Your task to perform on an android device: turn on priority inbox in the gmail app Image 0: 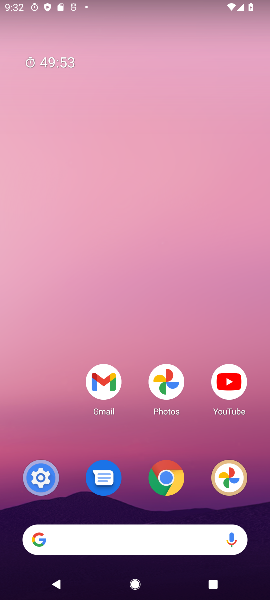
Step 0: press home button
Your task to perform on an android device: turn on priority inbox in the gmail app Image 1: 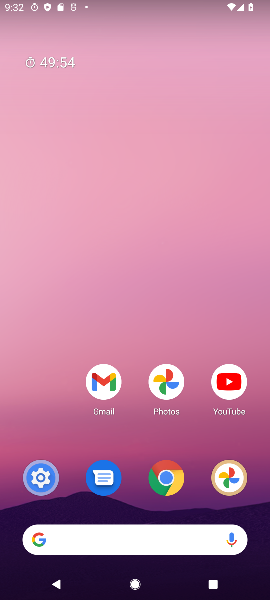
Step 1: drag from (162, 523) to (151, 75)
Your task to perform on an android device: turn on priority inbox in the gmail app Image 2: 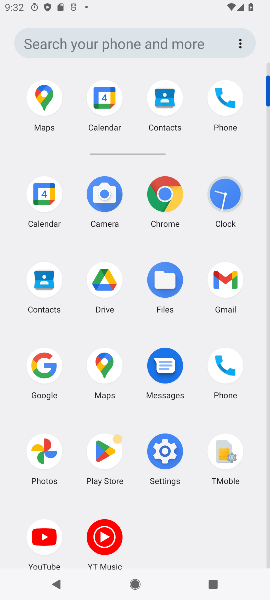
Step 2: click (223, 279)
Your task to perform on an android device: turn on priority inbox in the gmail app Image 3: 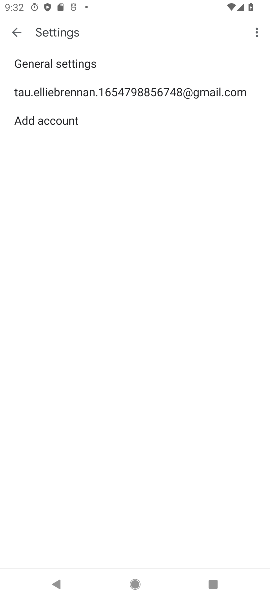
Step 3: click (140, 95)
Your task to perform on an android device: turn on priority inbox in the gmail app Image 4: 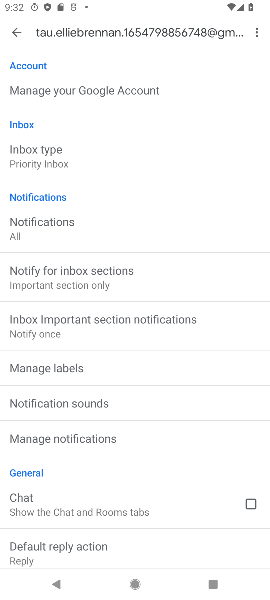
Step 4: press home button
Your task to perform on an android device: turn on priority inbox in the gmail app Image 5: 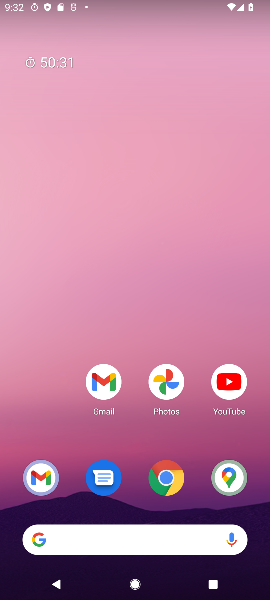
Step 5: click (106, 400)
Your task to perform on an android device: turn on priority inbox in the gmail app Image 6: 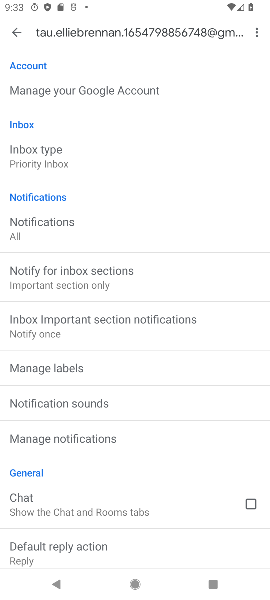
Step 6: click (37, 157)
Your task to perform on an android device: turn on priority inbox in the gmail app Image 7: 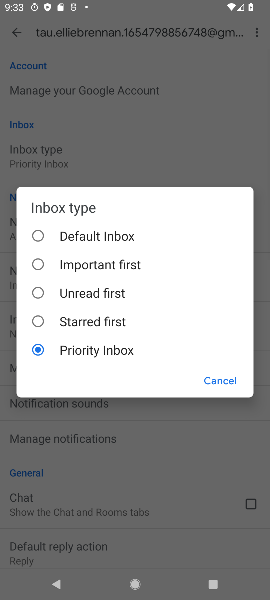
Step 7: click (100, 342)
Your task to perform on an android device: turn on priority inbox in the gmail app Image 8: 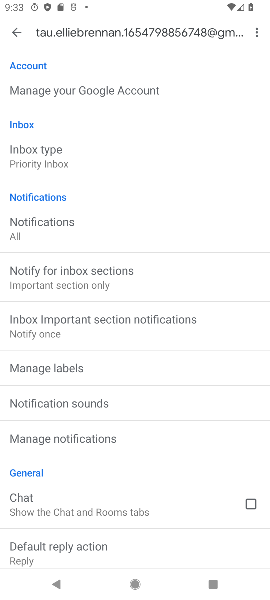
Step 8: task complete